Your task to perform on an android device: Open the calendar and show me this week's events Image 0: 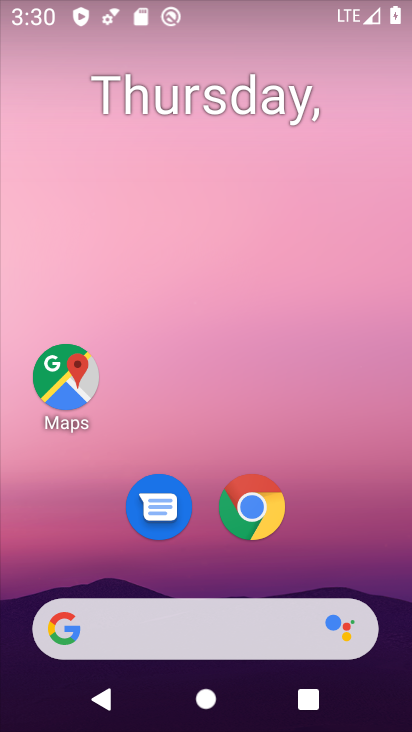
Step 0: press home button
Your task to perform on an android device: Open the calendar and show me this week's events Image 1: 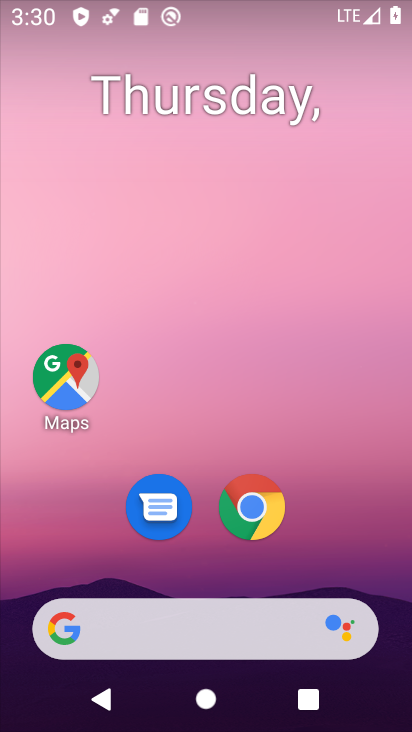
Step 1: drag from (332, 543) to (331, 83)
Your task to perform on an android device: Open the calendar and show me this week's events Image 2: 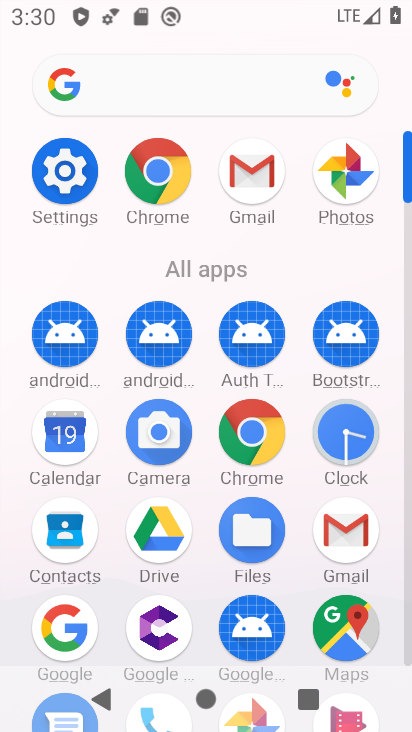
Step 2: click (53, 428)
Your task to perform on an android device: Open the calendar and show me this week's events Image 3: 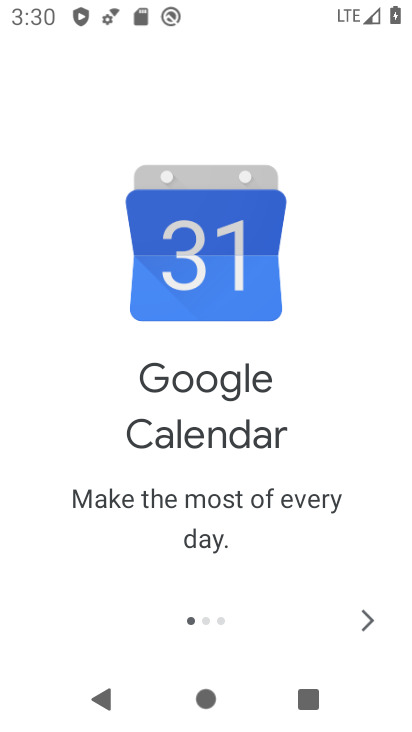
Step 3: click (371, 610)
Your task to perform on an android device: Open the calendar and show me this week's events Image 4: 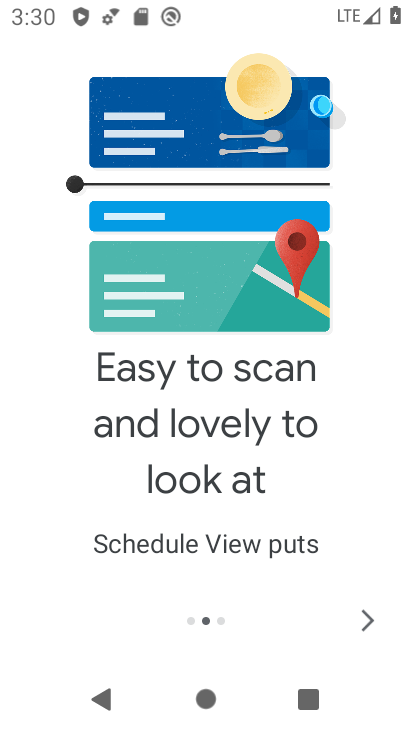
Step 4: click (368, 614)
Your task to perform on an android device: Open the calendar and show me this week's events Image 5: 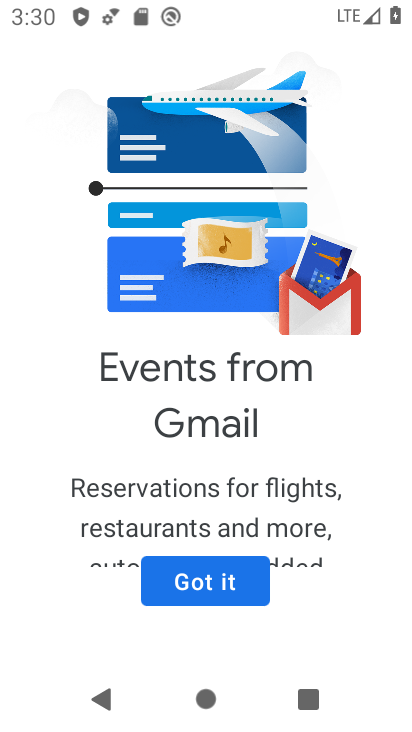
Step 5: click (194, 585)
Your task to perform on an android device: Open the calendar and show me this week's events Image 6: 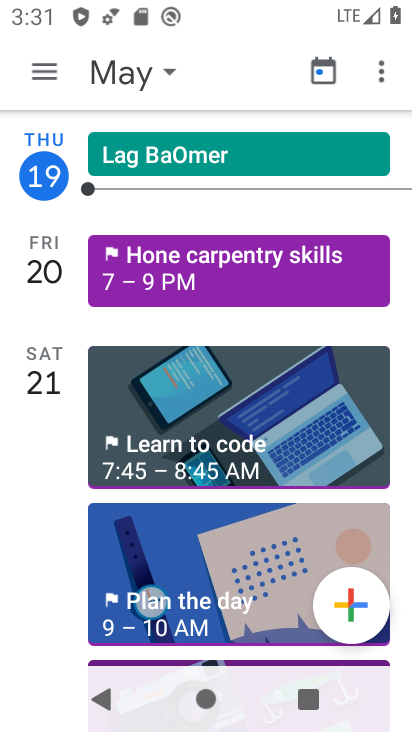
Step 6: click (171, 71)
Your task to perform on an android device: Open the calendar and show me this week's events Image 7: 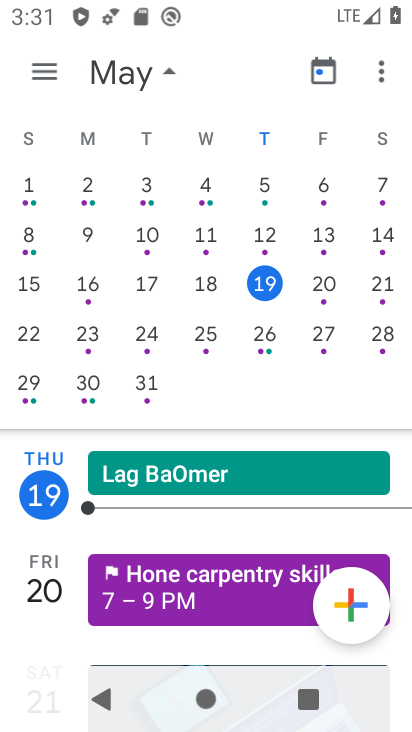
Step 7: click (312, 281)
Your task to perform on an android device: Open the calendar and show me this week's events Image 8: 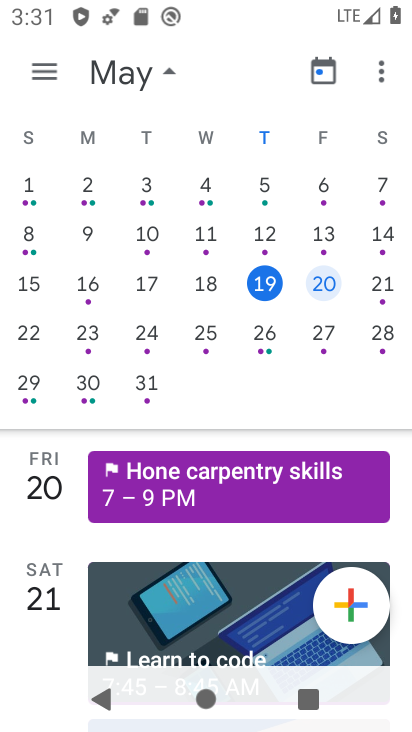
Step 8: click (163, 76)
Your task to perform on an android device: Open the calendar and show me this week's events Image 9: 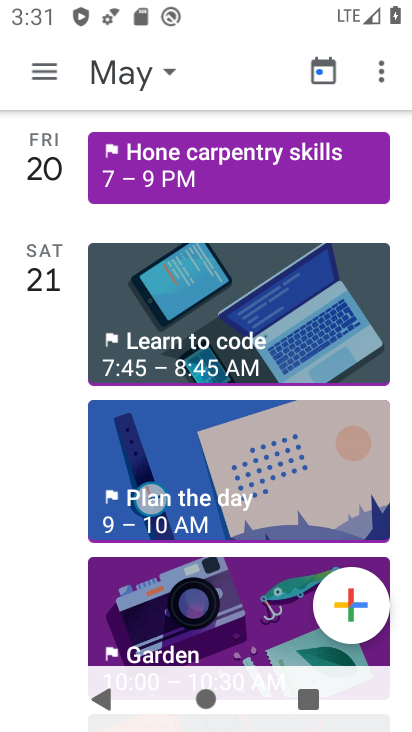
Step 9: task complete